Your task to perform on an android device: turn off improve location accuracy Image 0: 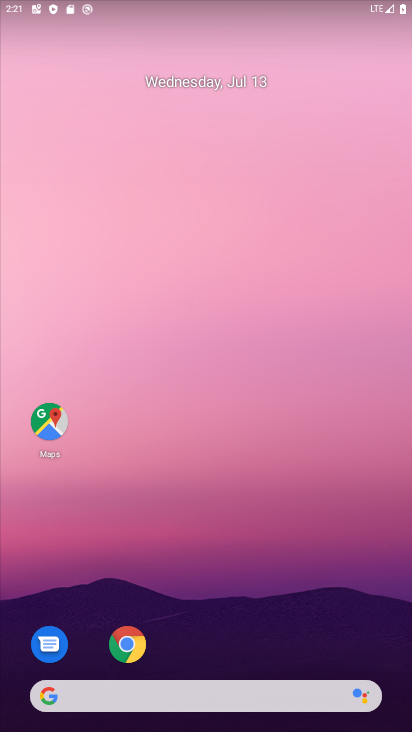
Step 0: drag from (320, 617) to (269, 148)
Your task to perform on an android device: turn off improve location accuracy Image 1: 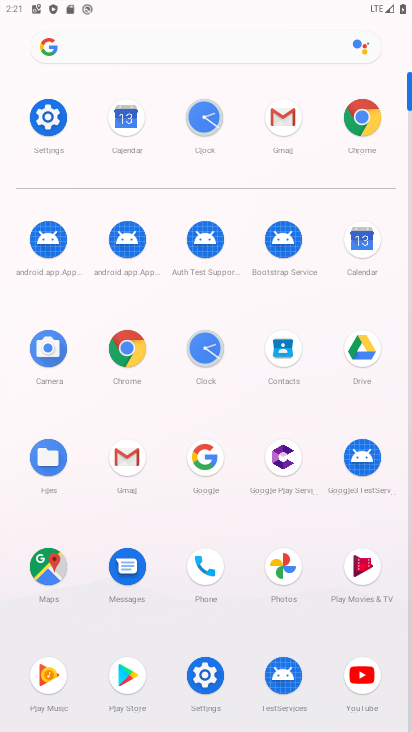
Step 1: click (50, 116)
Your task to perform on an android device: turn off improve location accuracy Image 2: 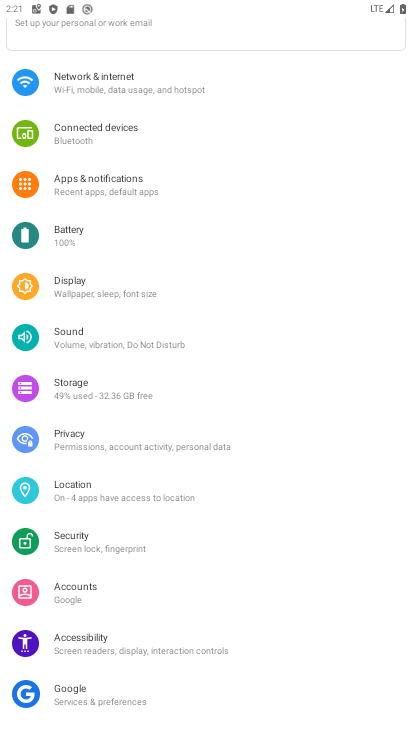
Step 2: click (106, 497)
Your task to perform on an android device: turn off improve location accuracy Image 3: 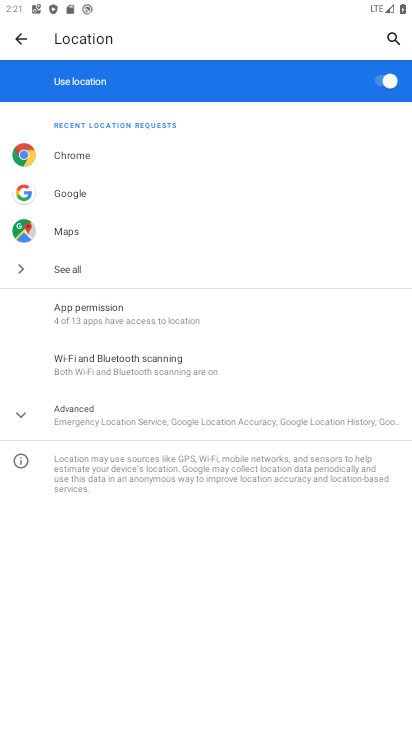
Step 3: click (252, 423)
Your task to perform on an android device: turn off improve location accuracy Image 4: 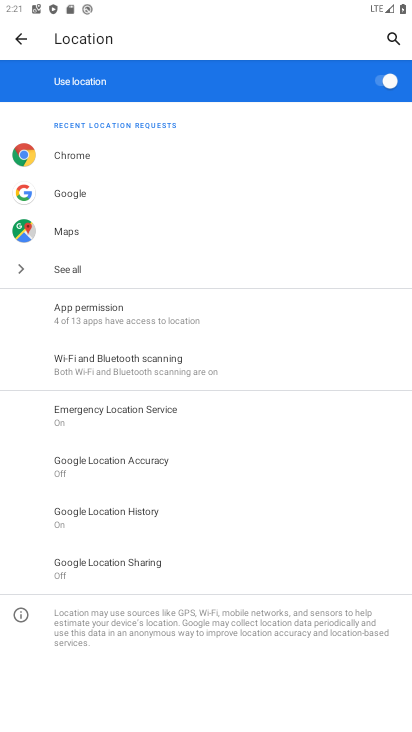
Step 4: click (160, 466)
Your task to perform on an android device: turn off improve location accuracy Image 5: 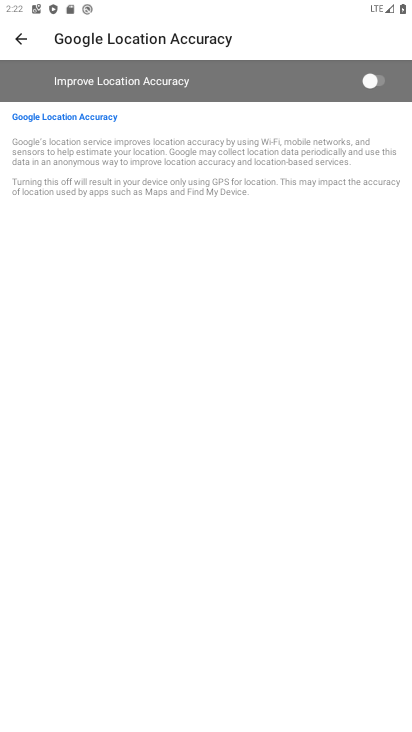
Step 5: task complete